Your task to perform on an android device: change the upload size in google photos Image 0: 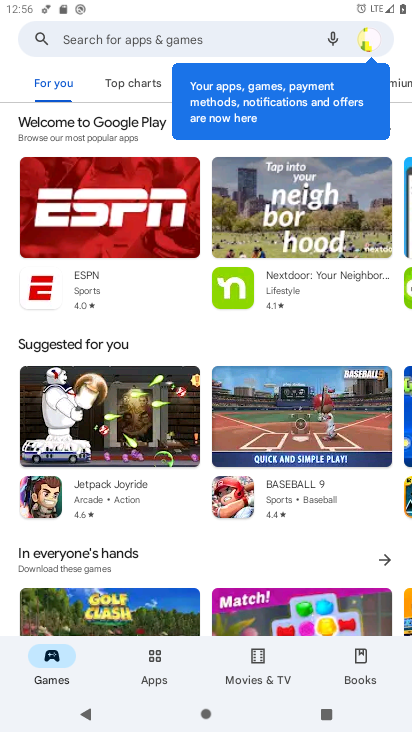
Step 0: press home button
Your task to perform on an android device: change the upload size in google photos Image 1: 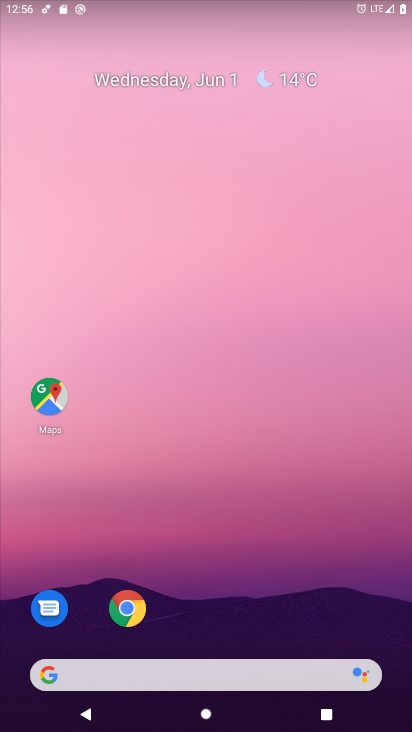
Step 1: drag from (211, 607) to (382, 32)
Your task to perform on an android device: change the upload size in google photos Image 2: 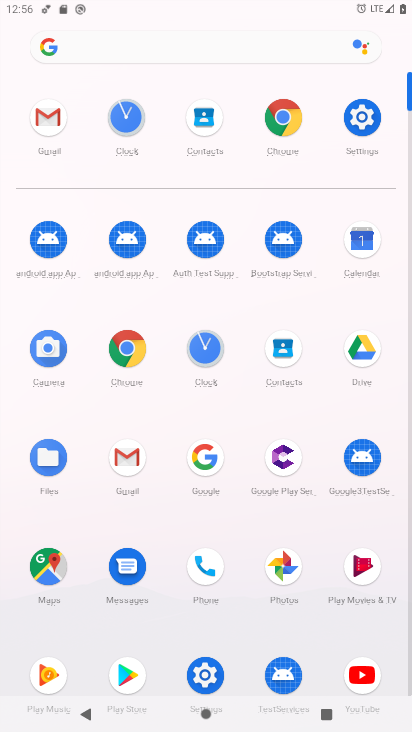
Step 2: click (301, 584)
Your task to perform on an android device: change the upload size in google photos Image 3: 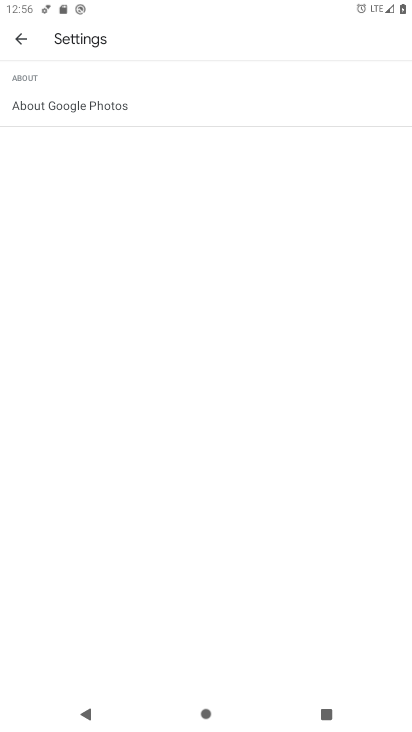
Step 3: click (18, 42)
Your task to perform on an android device: change the upload size in google photos Image 4: 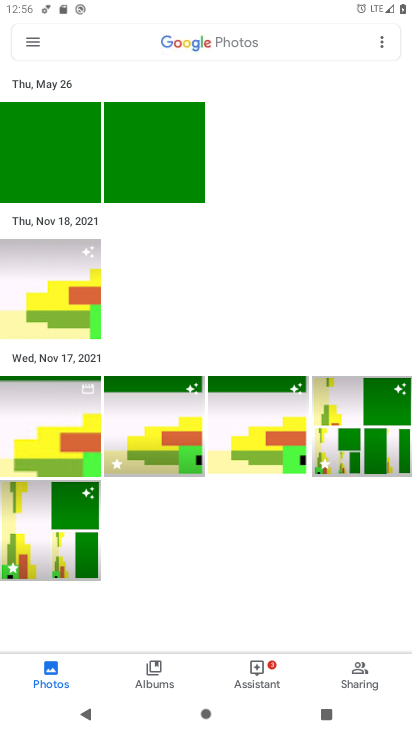
Step 4: click (18, 42)
Your task to perform on an android device: change the upload size in google photos Image 5: 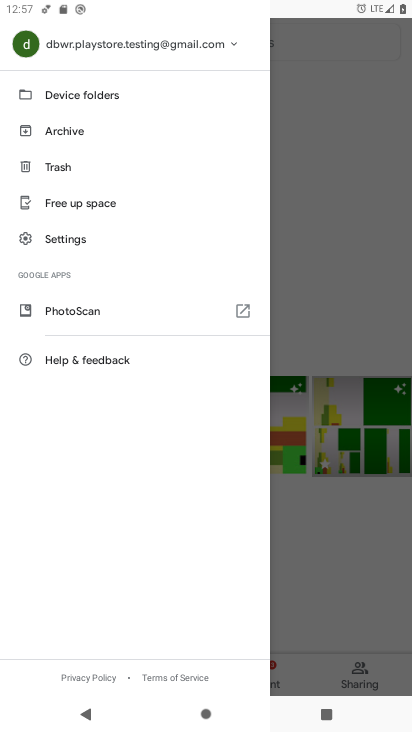
Step 5: click (81, 238)
Your task to perform on an android device: change the upload size in google photos Image 6: 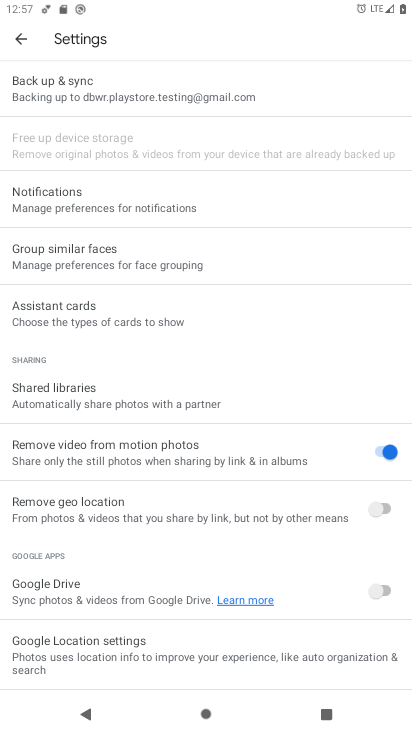
Step 6: click (132, 81)
Your task to perform on an android device: change the upload size in google photos Image 7: 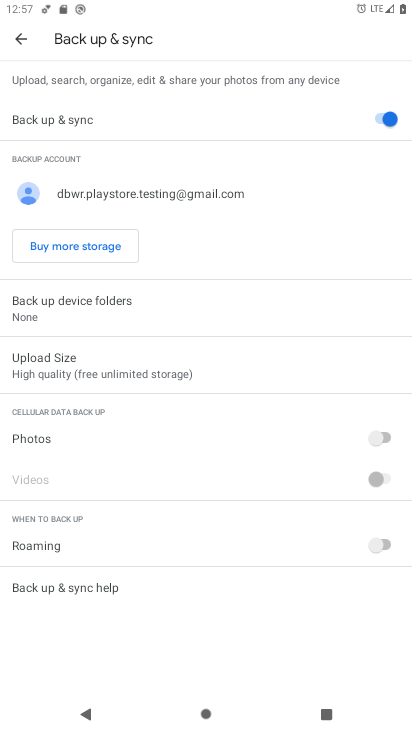
Step 7: click (185, 373)
Your task to perform on an android device: change the upload size in google photos Image 8: 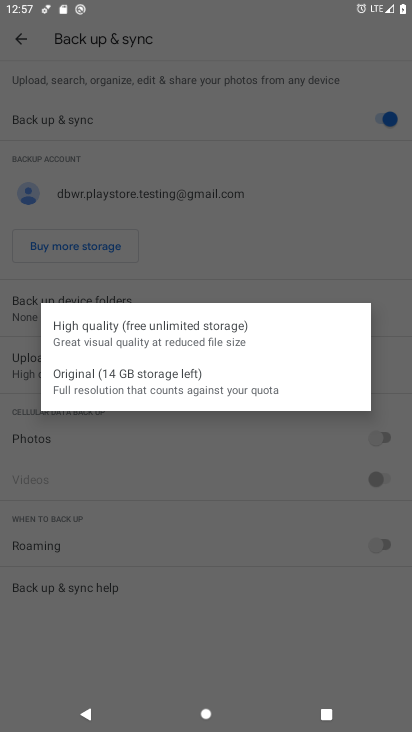
Step 8: click (177, 375)
Your task to perform on an android device: change the upload size in google photos Image 9: 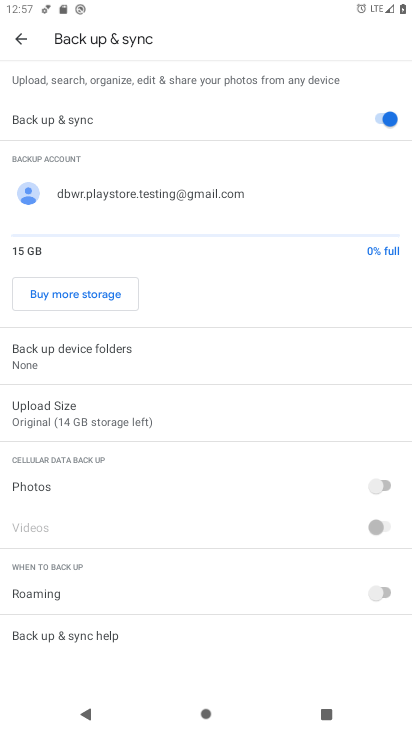
Step 9: task complete